Your task to perform on an android device: Add usb-c to the cart on costco, then select checkout. Image 0: 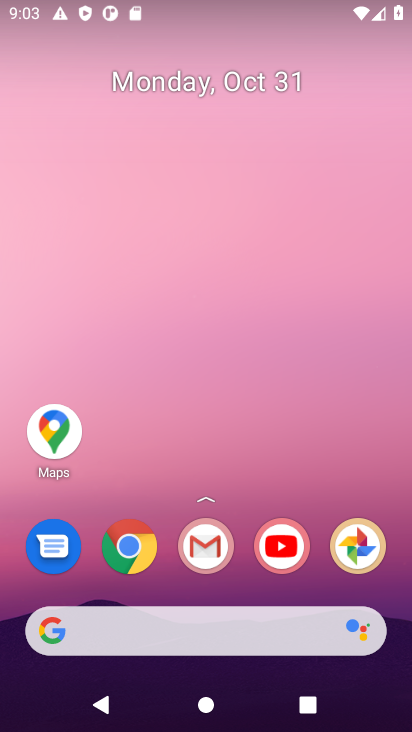
Step 0: click (118, 554)
Your task to perform on an android device: Add usb-c to the cart on costco, then select checkout. Image 1: 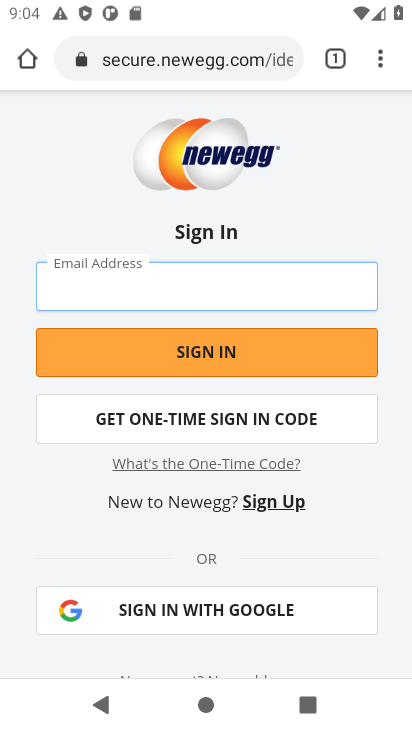
Step 1: click (212, 56)
Your task to perform on an android device: Add usb-c to the cart on costco, then select checkout. Image 2: 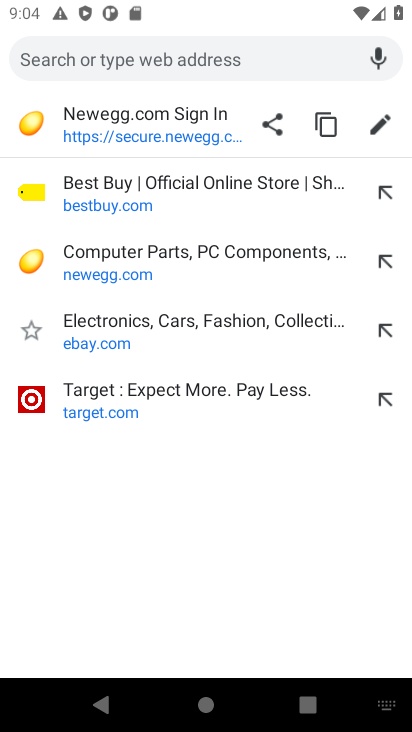
Step 2: press enter
Your task to perform on an android device: Add usb-c to the cart on costco, then select checkout. Image 3: 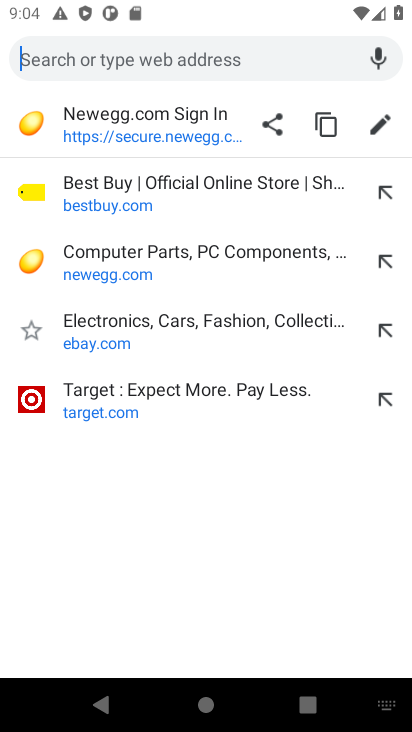
Step 3: type "costco"
Your task to perform on an android device: Add usb-c to the cart on costco, then select checkout. Image 4: 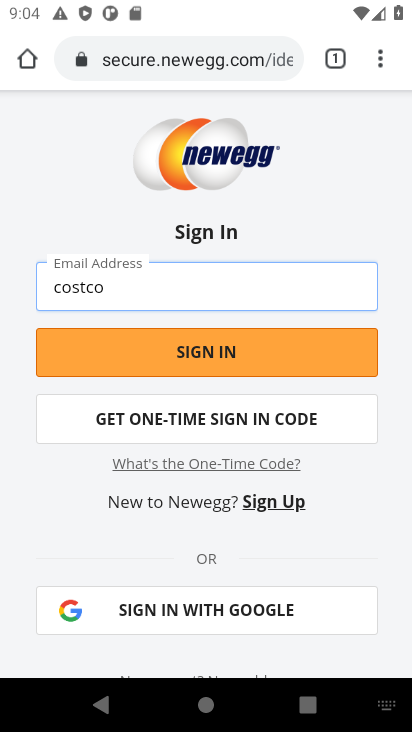
Step 4: type "costco"
Your task to perform on an android device: Add usb-c to the cart on costco, then select checkout. Image 5: 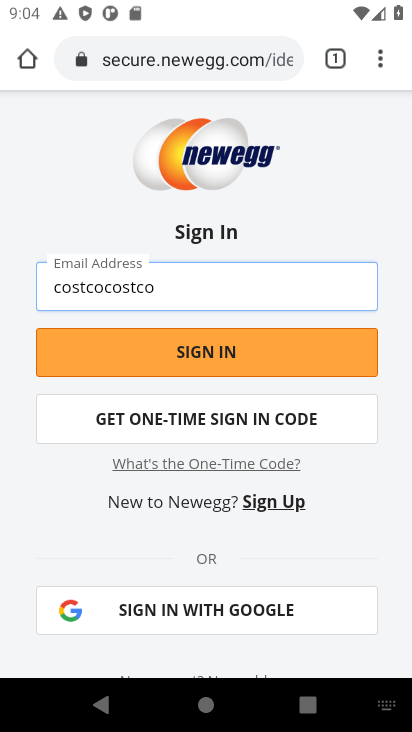
Step 5: click (190, 61)
Your task to perform on an android device: Add usb-c to the cart on costco, then select checkout. Image 6: 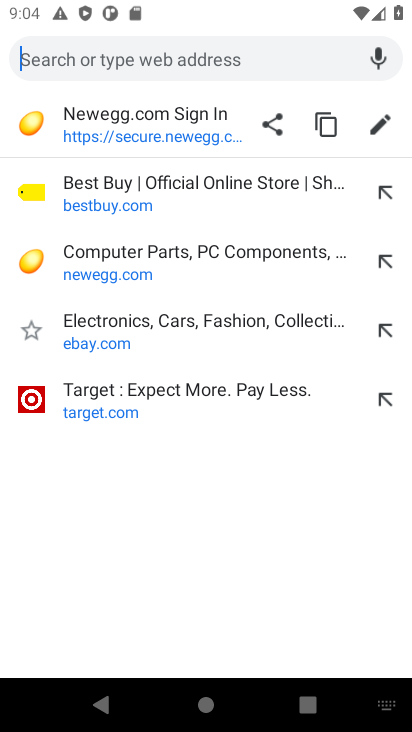
Step 6: type "costco"
Your task to perform on an android device: Add usb-c to the cart on costco, then select checkout. Image 7: 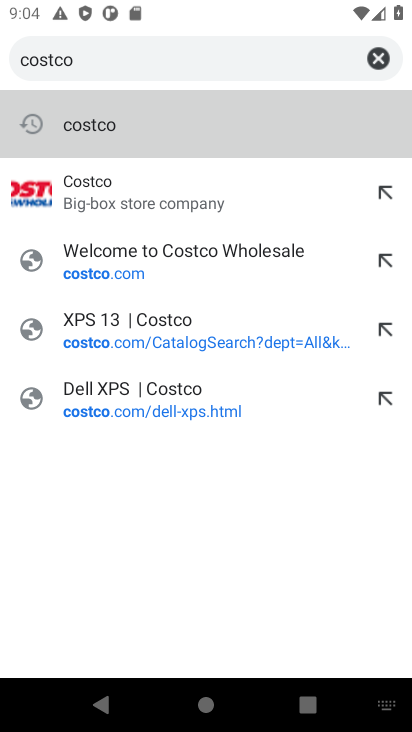
Step 7: press enter
Your task to perform on an android device: Add usb-c to the cart on costco, then select checkout. Image 8: 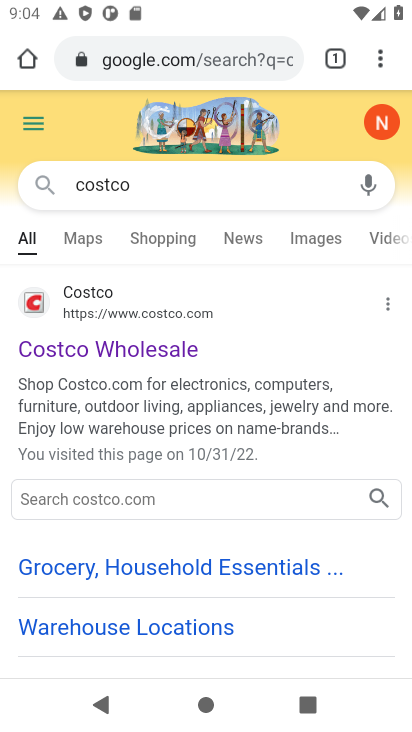
Step 8: click (162, 350)
Your task to perform on an android device: Add usb-c to the cart on costco, then select checkout. Image 9: 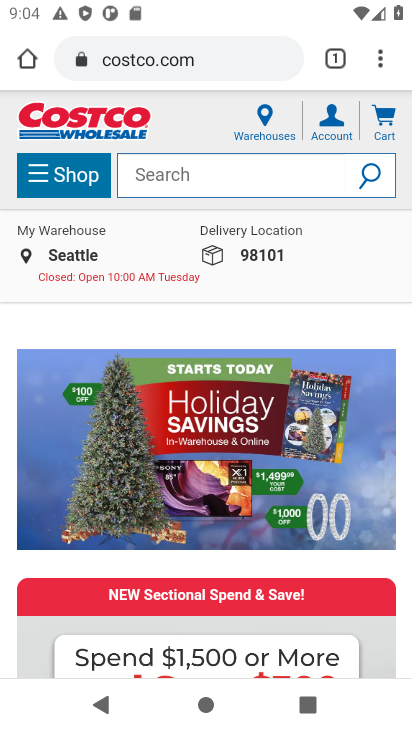
Step 9: click (182, 186)
Your task to perform on an android device: Add usb-c to the cart on costco, then select checkout. Image 10: 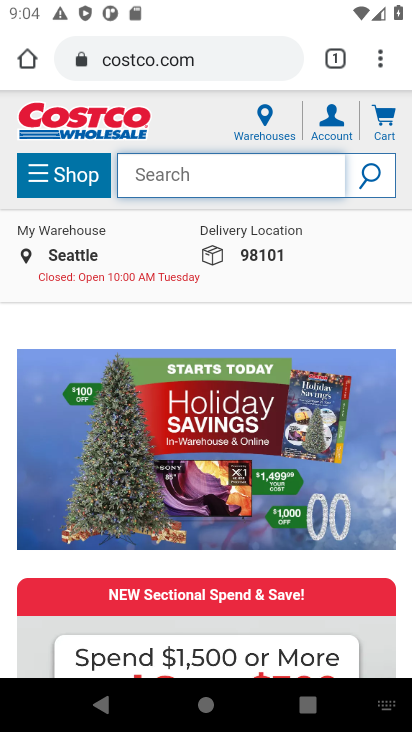
Step 10: type "usb-c"
Your task to perform on an android device: Add usb-c to the cart on costco, then select checkout. Image 11: 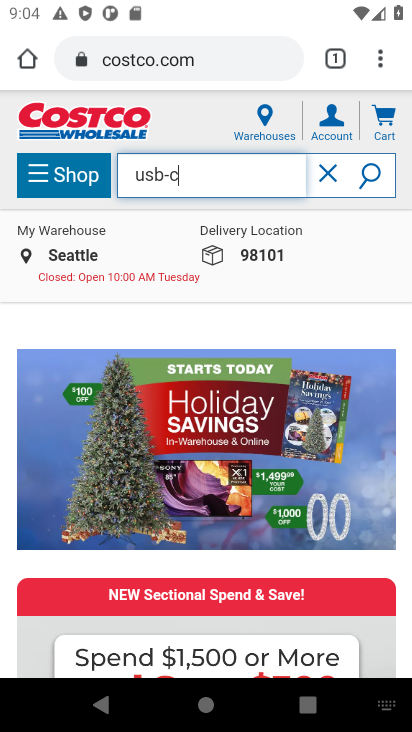
Step 11: press enter
Your task to perform on an android device: Add usb-c to the cart on costco, then select checkout. Image 12: 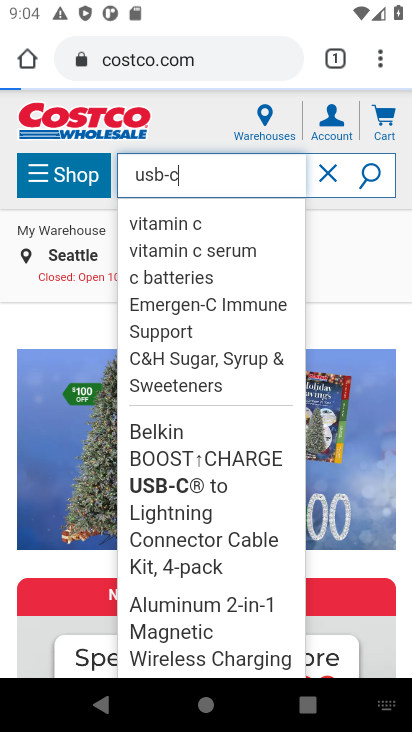
Step 12: press enter
Your task to perform on an android device: Add usb-c to the cart on costco, then select checkout. Image 13: 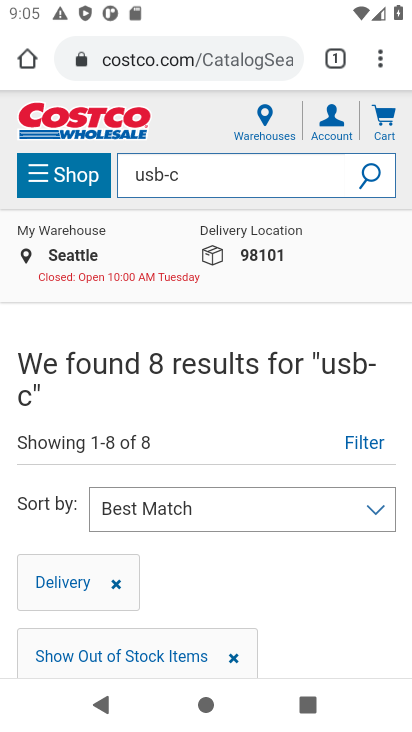
Step 13: drag from (294, 539) to (349, 173)
Your task to perform on an android device: Add usb-c to the cart on costco, then select checkout. Image 14: 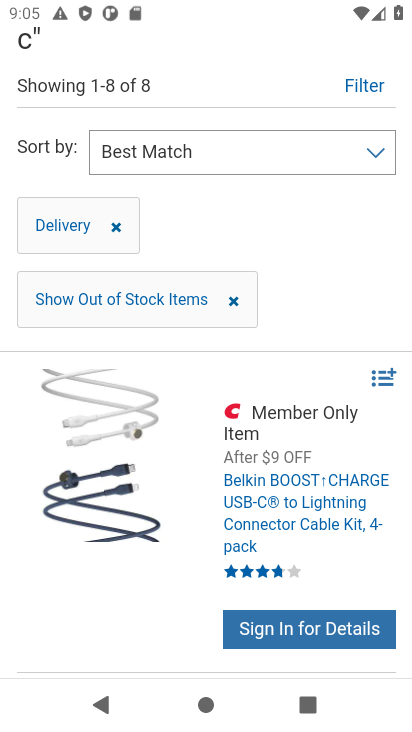
Step 14: drag from (294, 333) to (309, 216)
Your task to perform on an android device: Add usb-c to the cart on costco, then select checkout. Image 15: 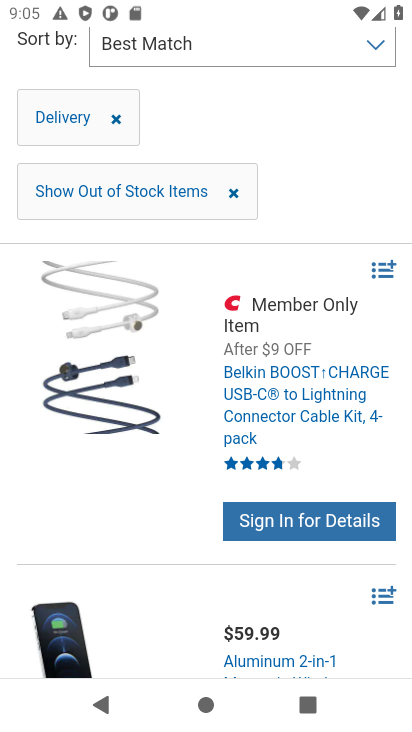
Step 15: drag from (164, 518) to (126, 586)
Your task to perform on an android device: Add usb-c to the cart on costco, then select checkout. Image 16: 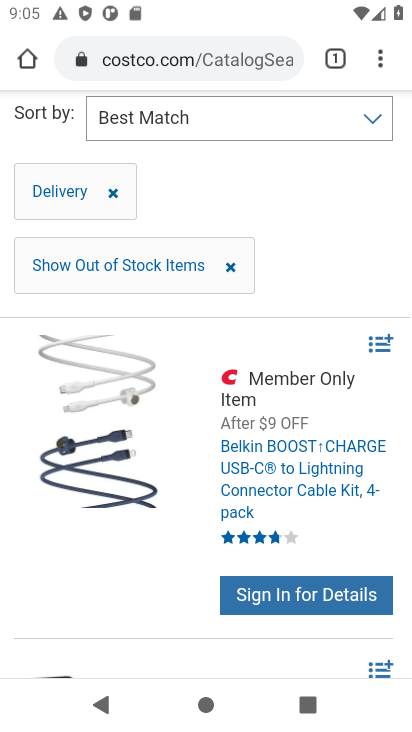
Step 16: click (254, 439)
Your task to perform on an android device: Add usb-c to the cart on costco, then select checkout. Image 17: 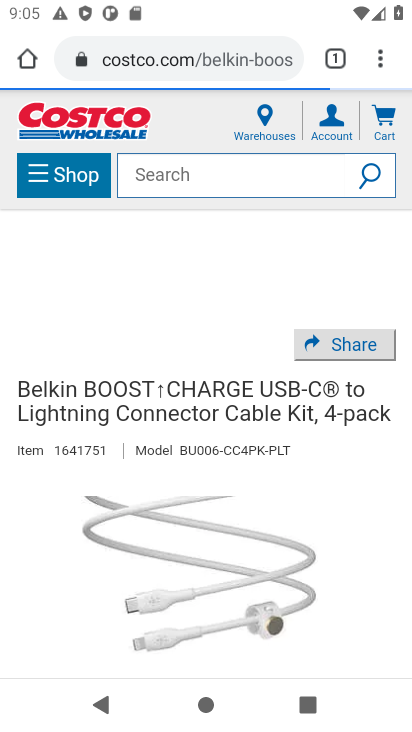
Step 17: drag from (225, 460) to (222, 292)
Your task to perform on an android device: Add usb-c to the cart on costco, then select checkout. Image 18: 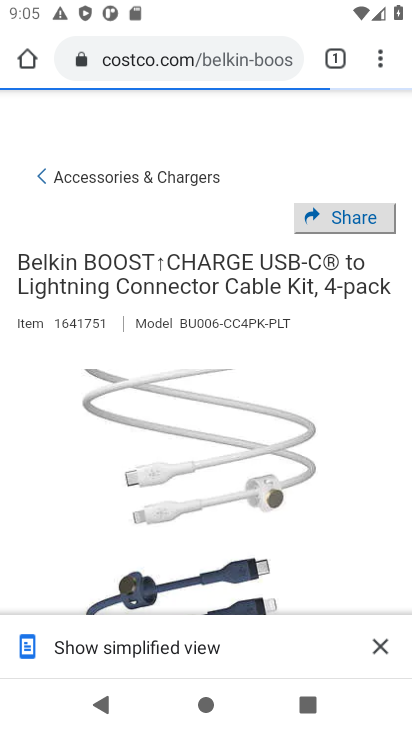
Step 18: drag from (217, 438) to (219, 280)
Your task to perform on an android device: Add usb-c to the cart on costco, then select checkout. Image 19: 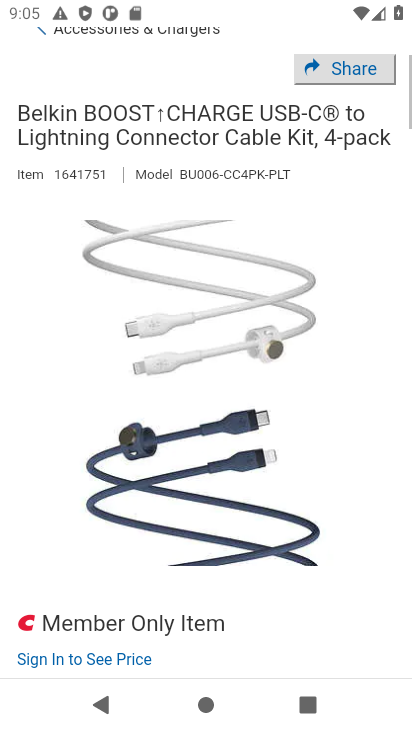
Step 19: drag from (246, 486) to (249, 310)
Your task to perform on an android device: Add usb-c to the cart on costco, then select checkout. Image 20: 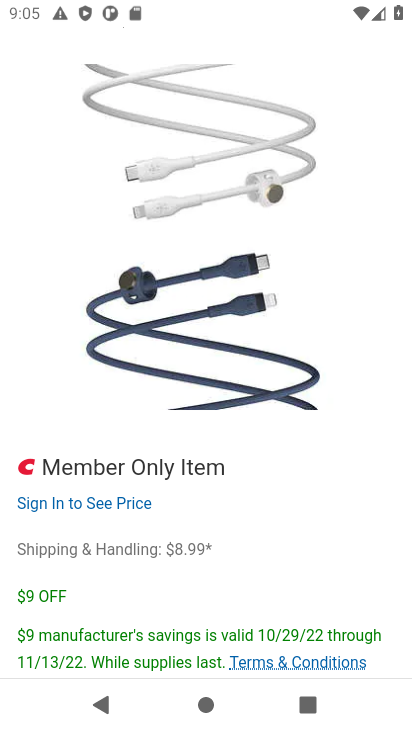
Step 20: drag from (246, 530) to (260, 312)
Your task to perform on an android device: Add usb-c to the cart on costco, then select checkout. Image 21: 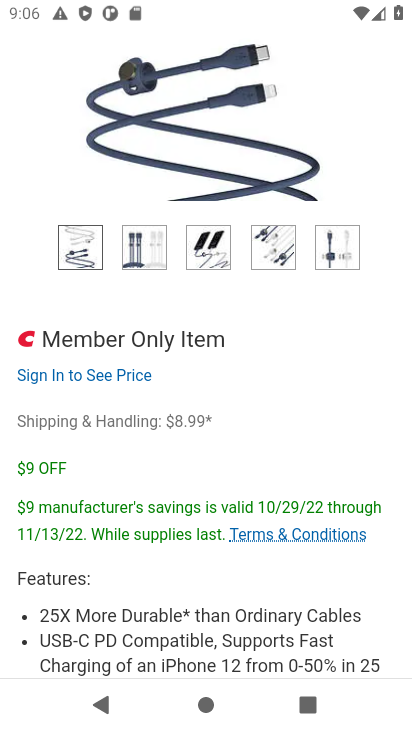
Step 21: drag from (85, 594) to (87, 253)
Your task to perform on an android device: Add usb-c to the cart on costco, then select checkout. Image 22: 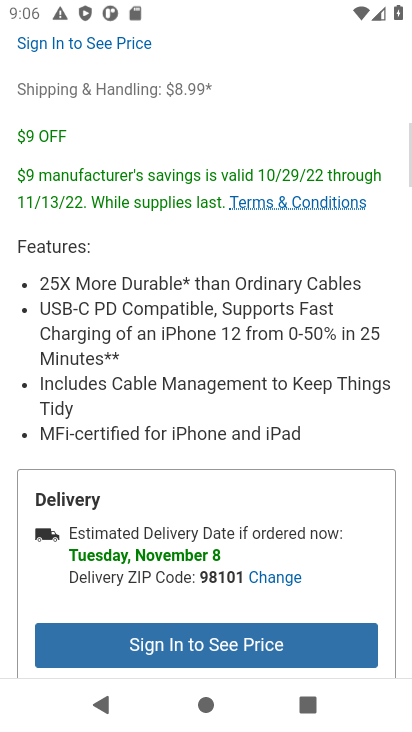
Step 22: click (92, 409)
Your task to perform on an android device: Add usb-c to the cart on costco, then select checkout. Image 23: 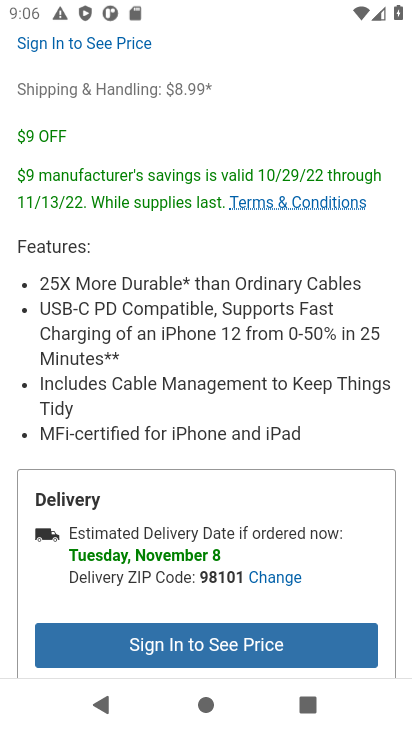
Step 23: task complete